Your task to perform on an android device: Check the weather Image 0: 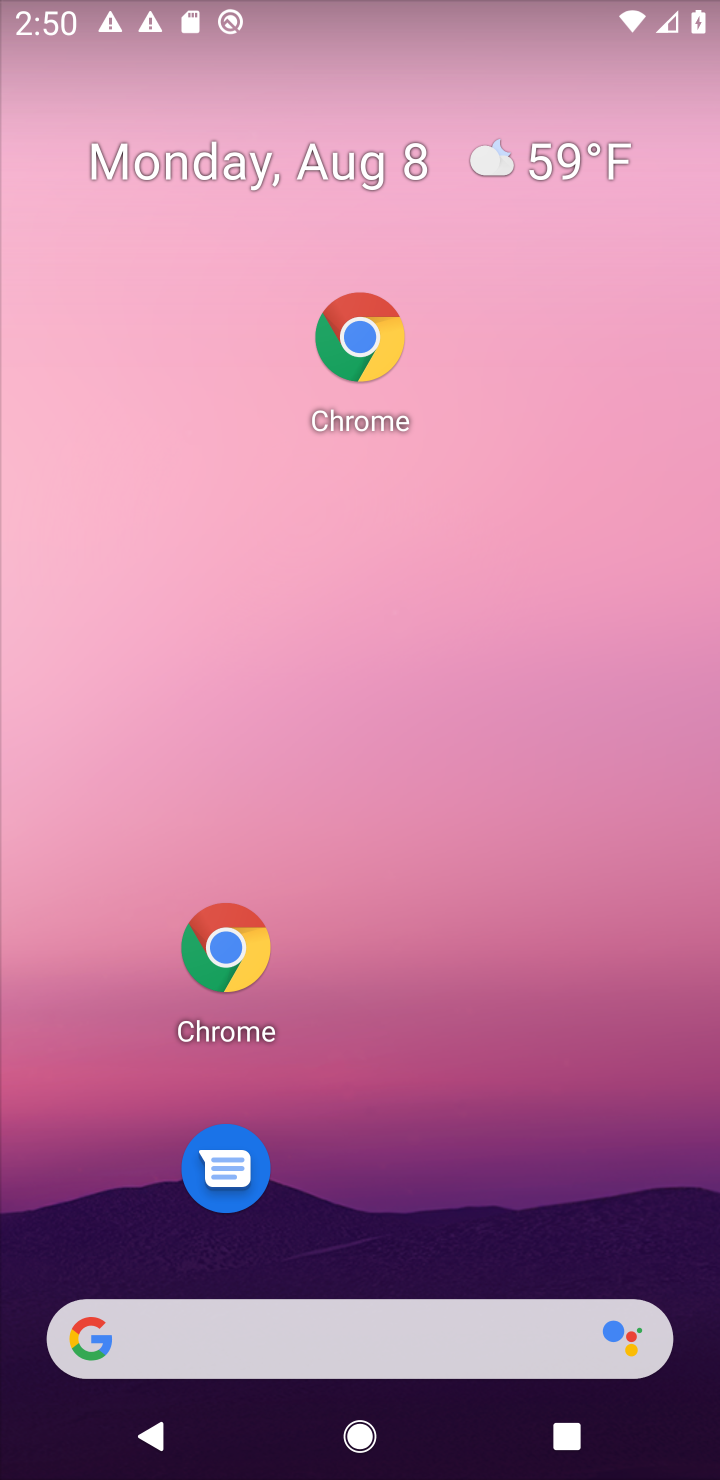
Step 0: drag from (555, 1266) to (533, 204)
Your task to perform on an android device: Check the weather Image 1: 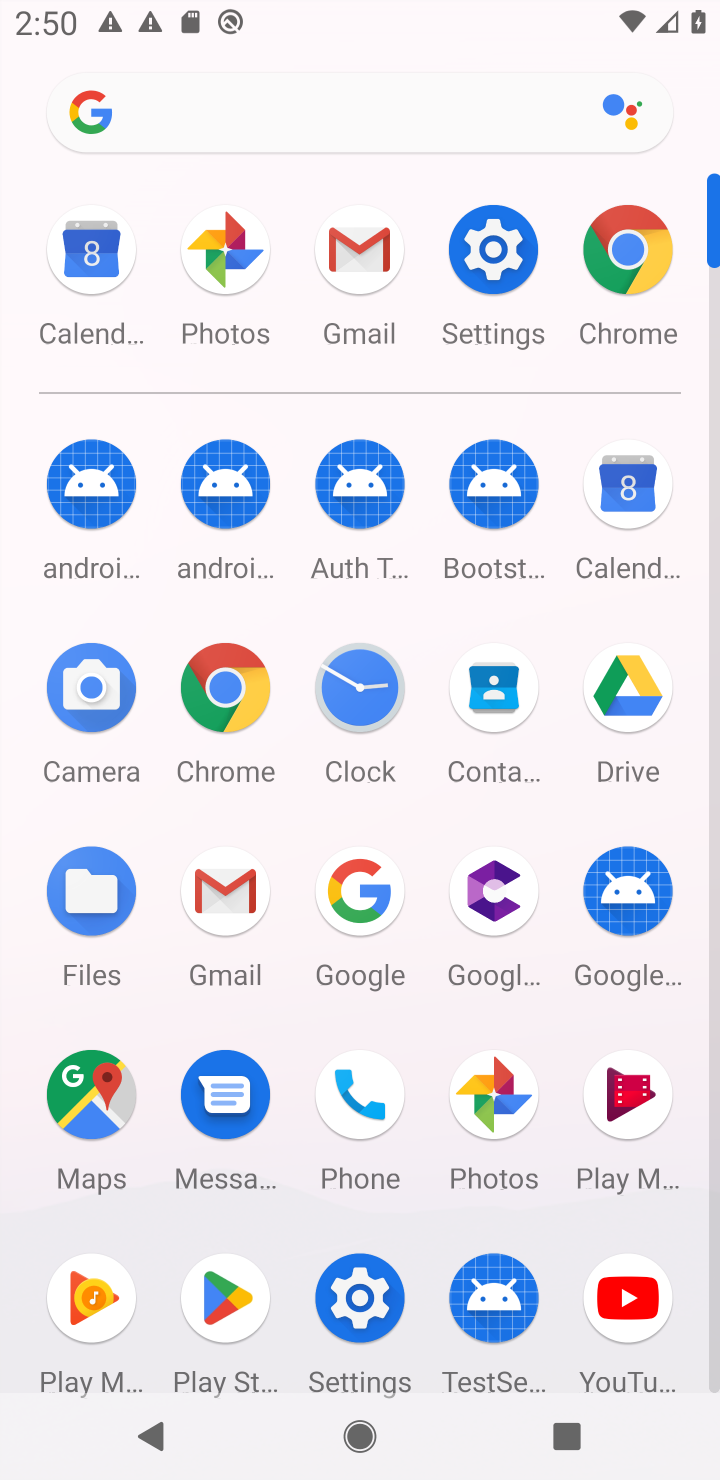
Step 1: click (329, 111)
Your task to perform on an android device: Check the weather Image 2: 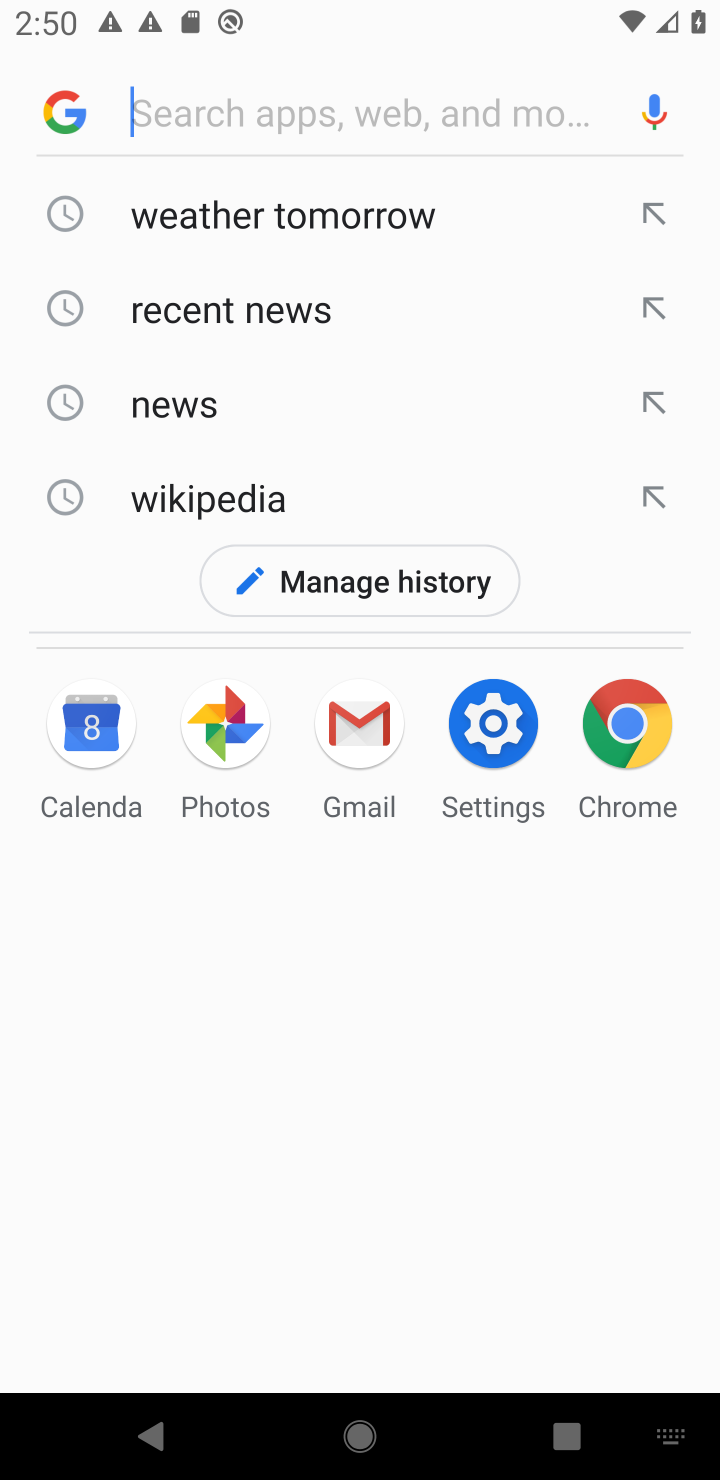
Step 2: click (360, 216)
Your task to perform on an android device: Check the weather Image 3: 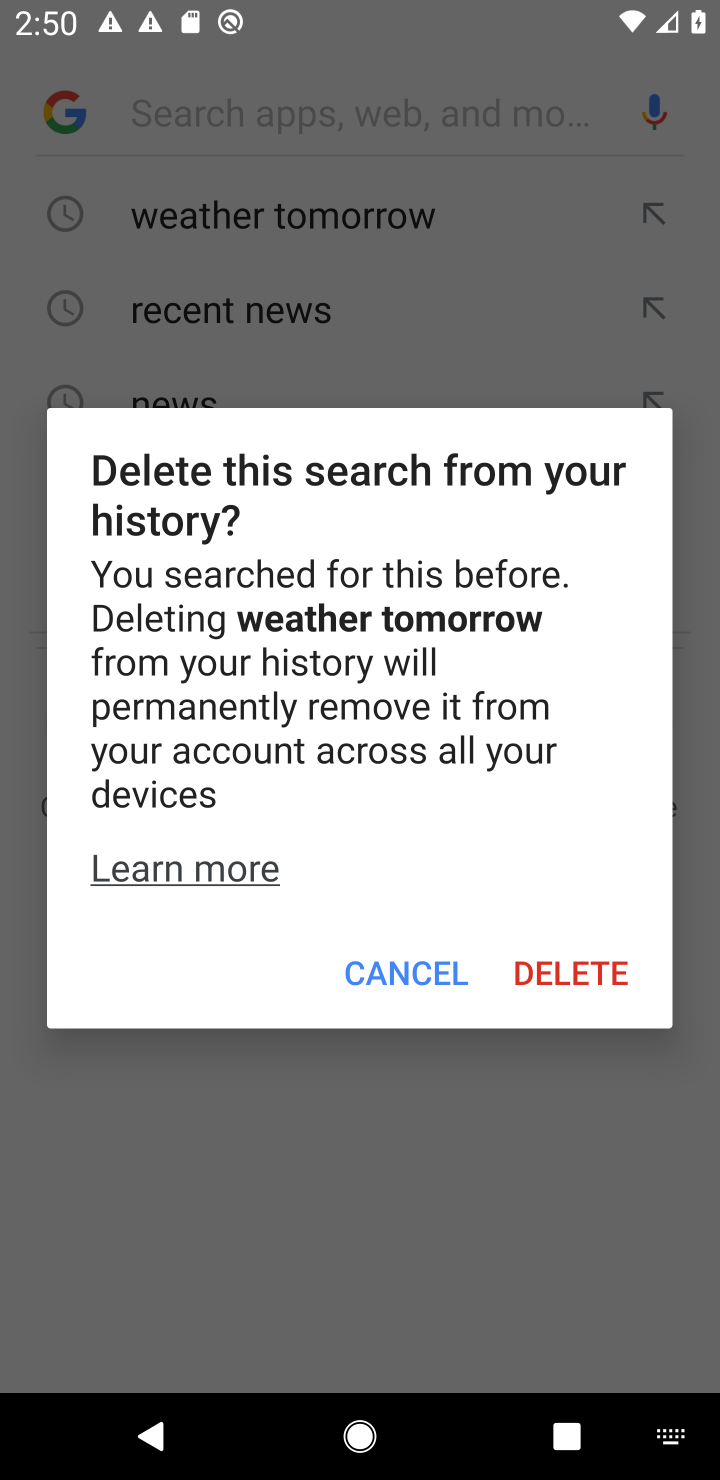
Step 3: click (432, 967)
Your task to perform on an android device: Check the weather Image 4: 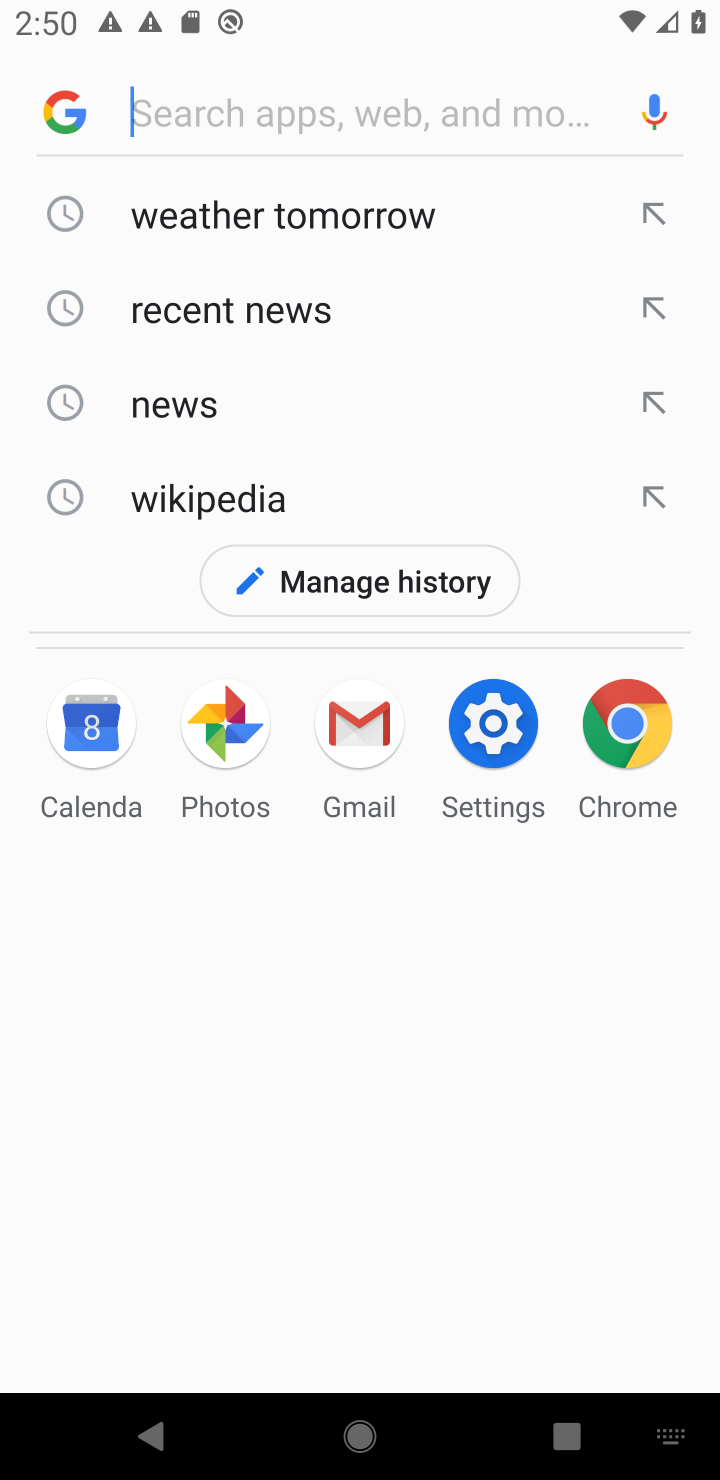
Step 4: click (297, 230)
Your task to perform on an android device: Check the weather Image 5: 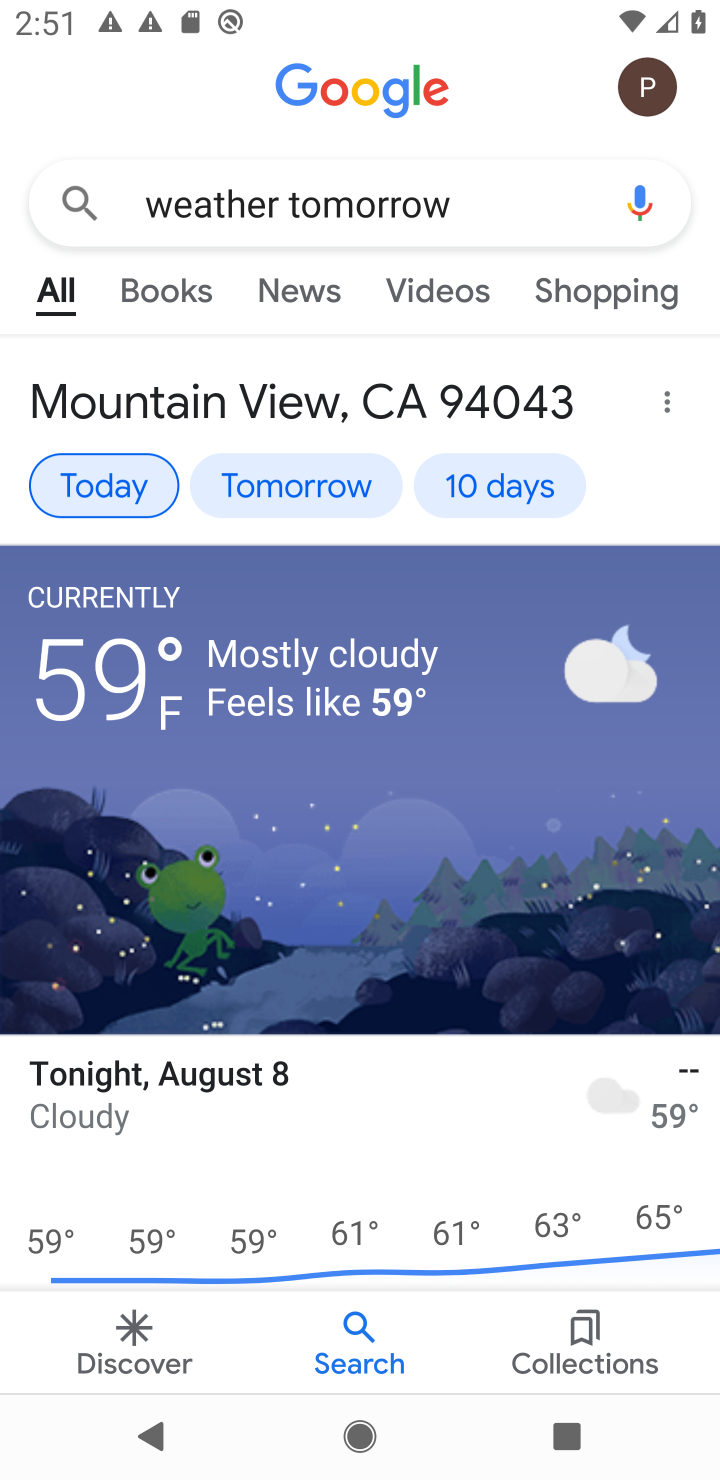
Step 5: task complete